Your task to perform on an android device: turn on sleep mode Image 0: 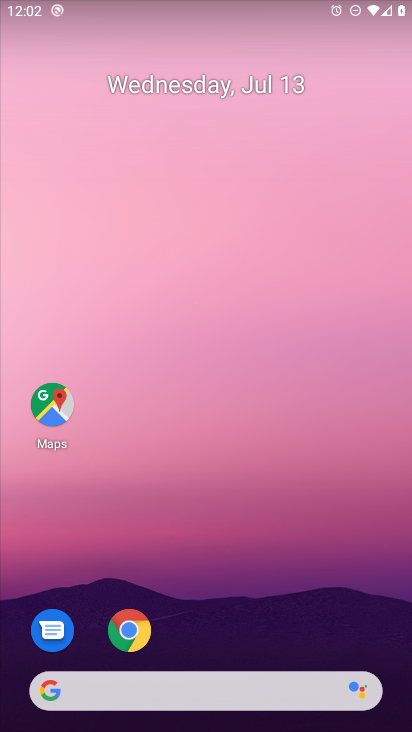
Step 0: press home button
Your task to perform on an android device: turn on sleep mode Image 1: 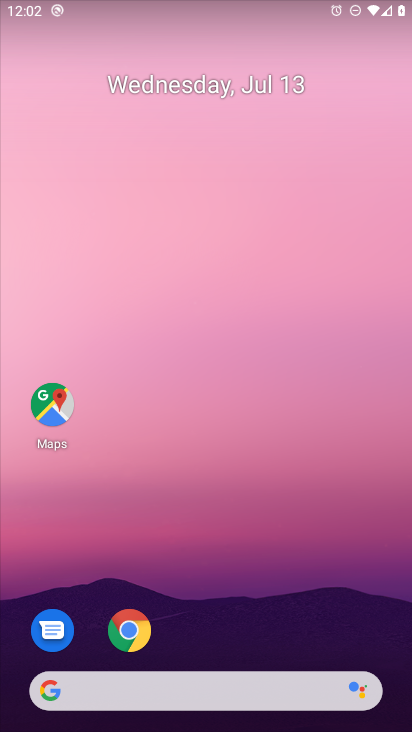
Step 1: drag from (276, 585) to (302, 136)
Your task to perform on an android device: turn on sleep mode Image 2: 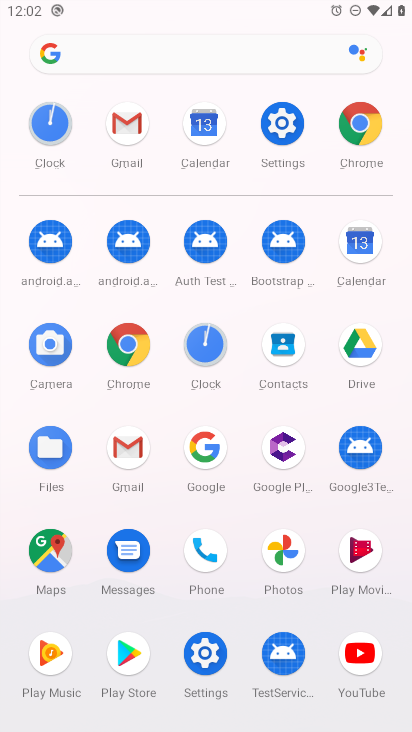
Step 2: click (282, 132)
Your task to perform on an android device: turn on sleep mode Image 3: 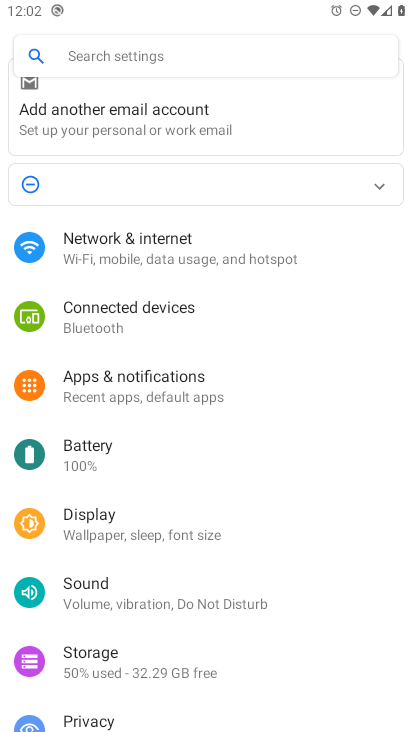
Step 3: click (93, 526)
Your task to perform on an android device: turn on sleep mode Image 4: 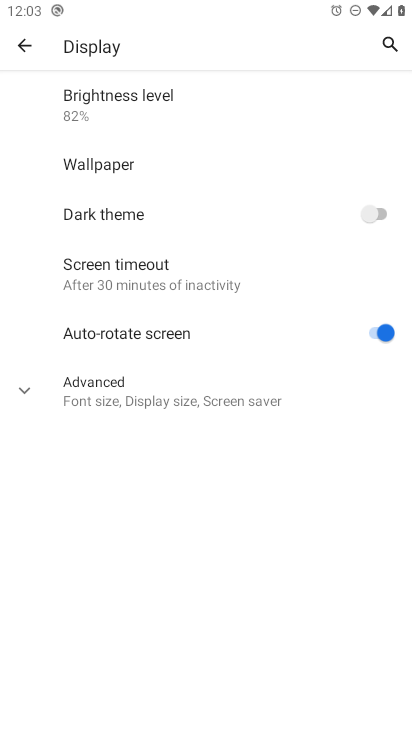
Step 4: task complete